Your task to perform on an android device: When is my next appointment? Image 0: 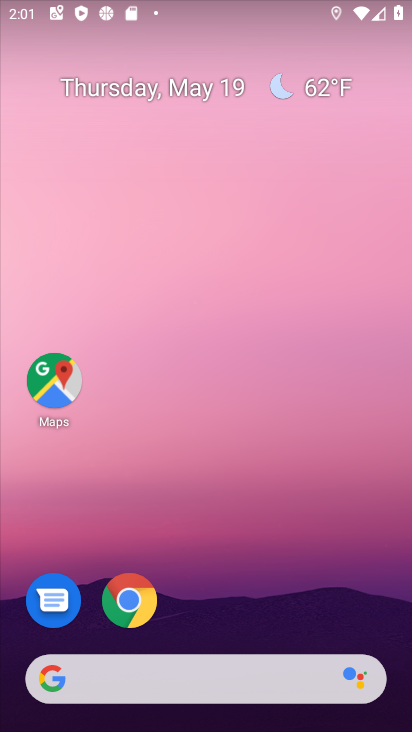
Step 0: press home button
Your task to perform on an android device: When is my next appointment? Image 1: 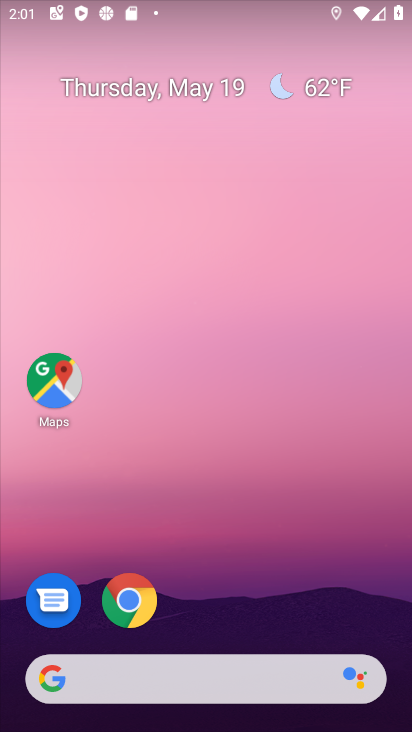
Step 1: drag from (59, 503) to (186, 232)
Your task to perform on an android device: When is my next appointment? Image 2: 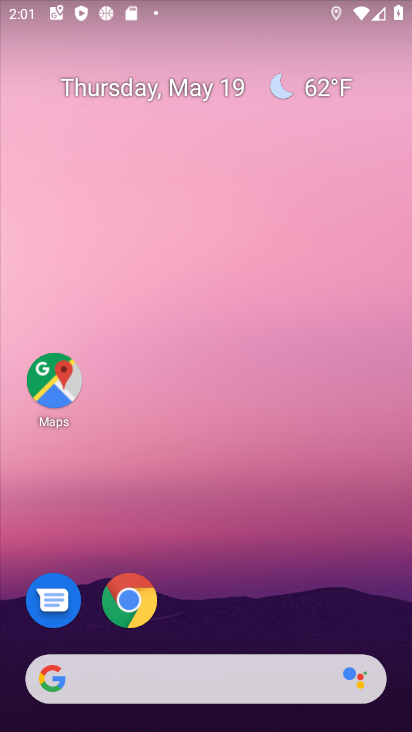
Step 2: drag from (18, 600) to (234, 166)
Your task to perform on an android device: When is my next appointment? Image 3: 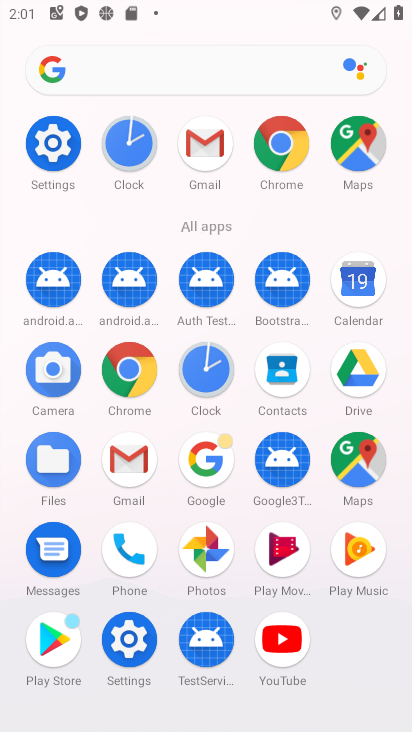
Step 3: click (359, 291)
Your task to perform on an android device: When is my next appointment? Image 4: 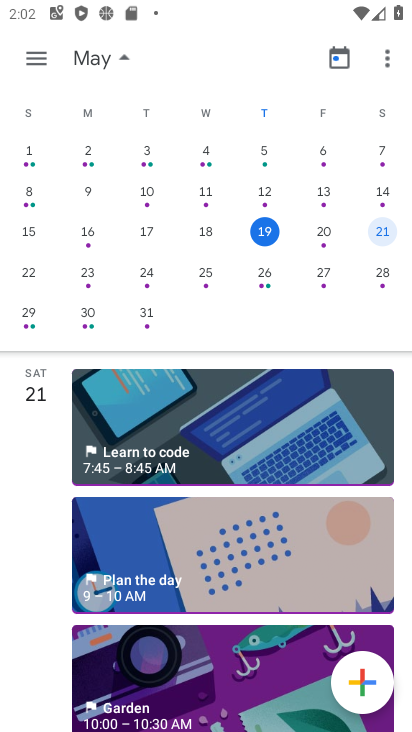
Step 4: task complete